Your task to perform on an android device: Open my contact list Image 0: 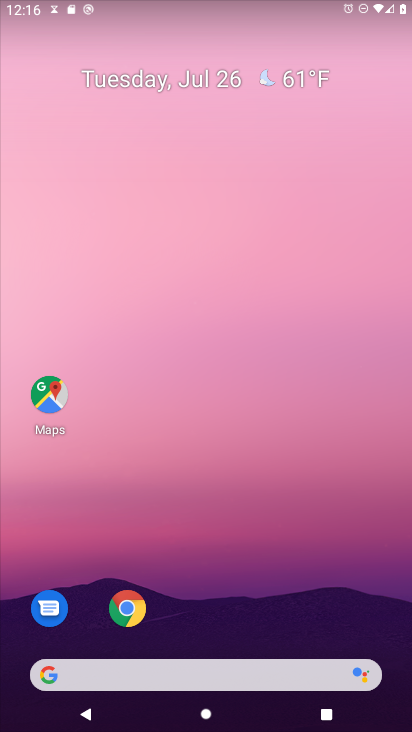
Step 0: drag from (185, 670) to (195, 66)
Your task to perform on an android device: Open my contact list Image 1: 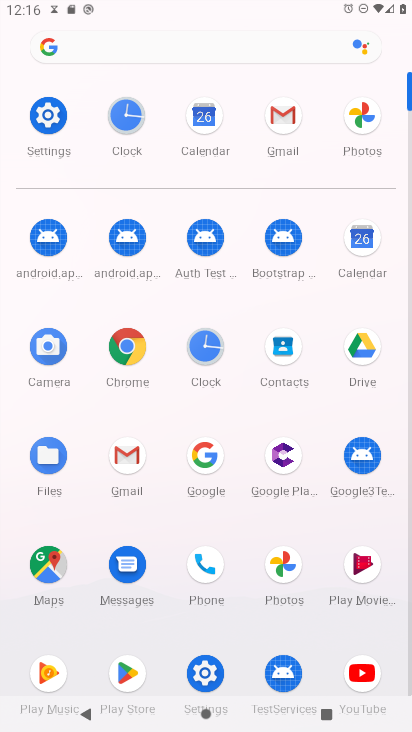
Step 1: click (283, 347)
Your task to perform on an android device: Open my contact list Image 2: 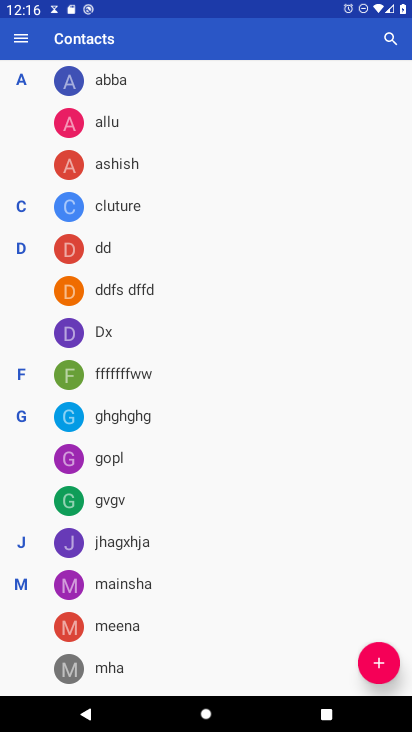
Step 2: task complete